Your task to perform on an android device: Go to Yahoo.com Image 0: 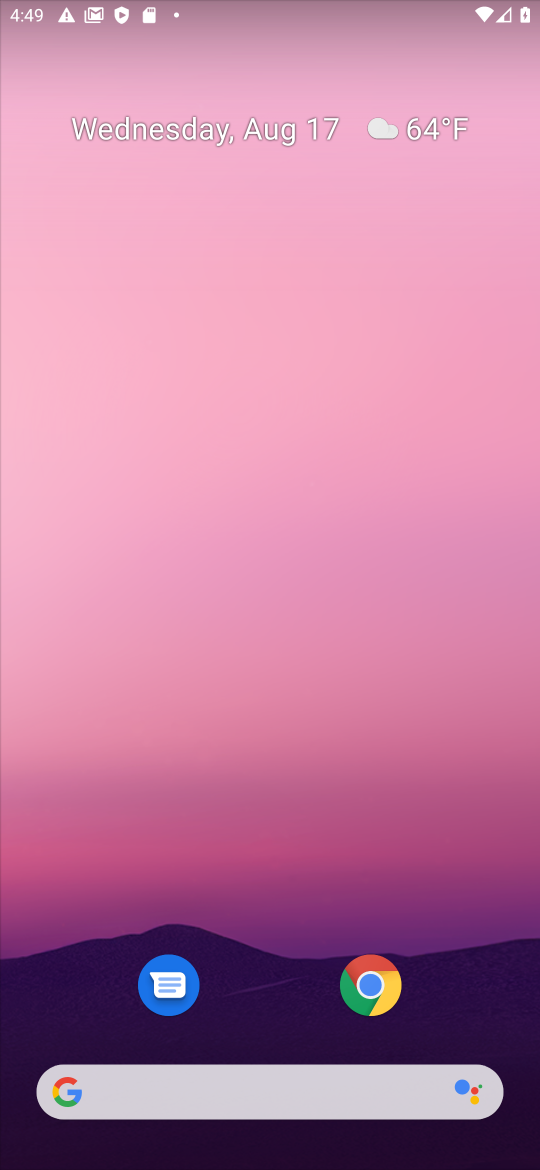
Step 0: click (371, 992)
Your task to perform on an android device: Go to Yahoo.com Image 1: 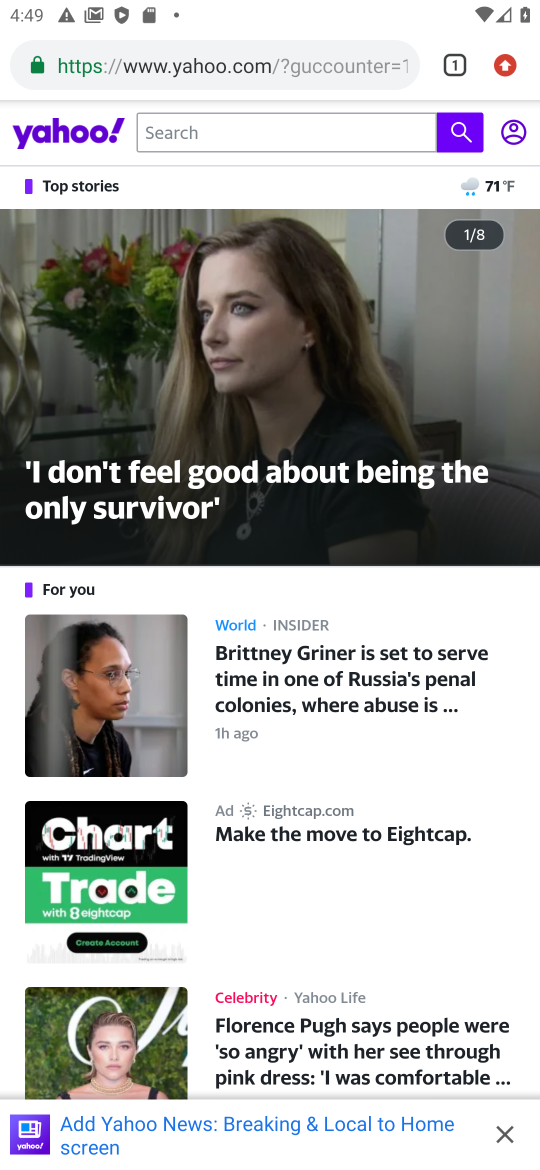
Step 1: task complete